Your task to perform on an android device: Clear the shopping cart on amazon. Add logitech g pro to the cart on amazon Image 0: 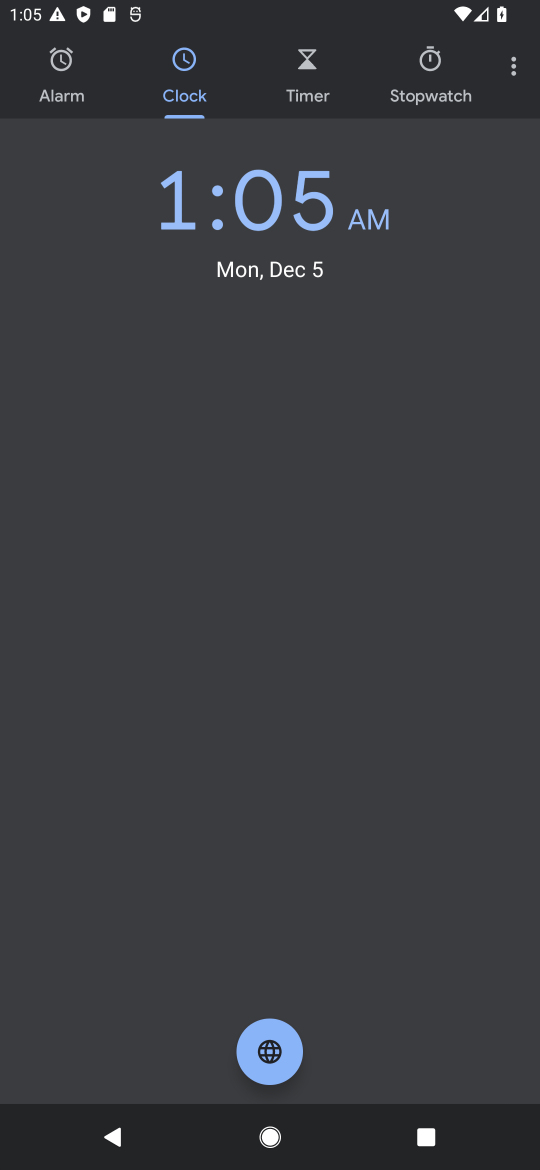
Step 0: task complete